Your task to perform on an android device: Open settings Image 0: 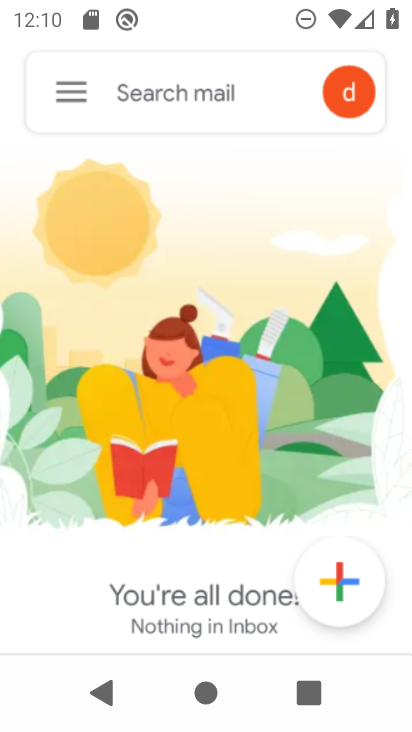
Step 0: press home button
Your task to perform on an android device: Open settings Image 1: 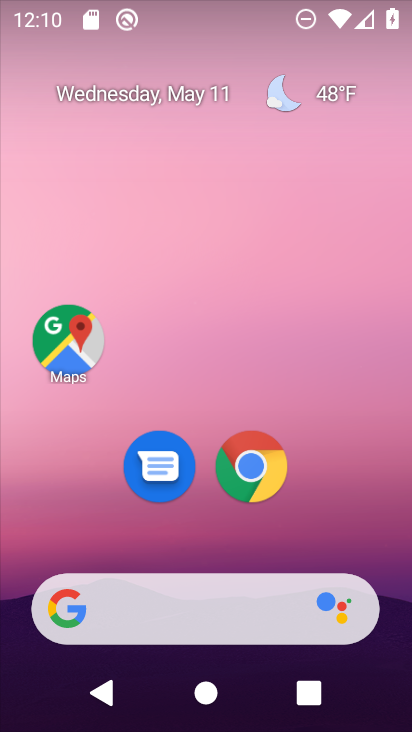
Step 1: drag from (200, 542) to (219, 36)
Your task to perform on an android device: Open settings Image 2: 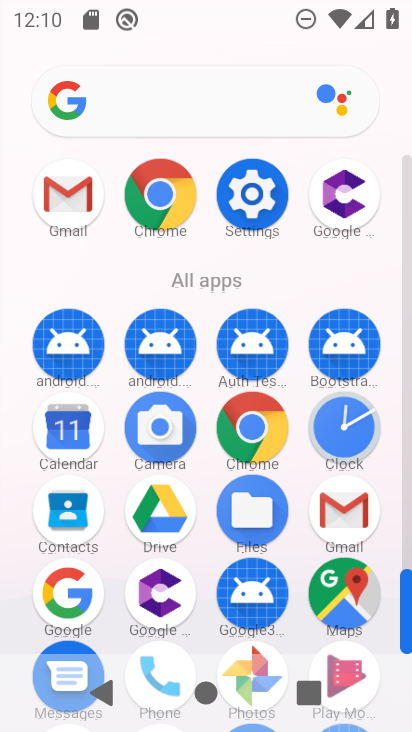
Step 2: click (255, 191)
Your task to perform on an android device: Open settings Image 3: 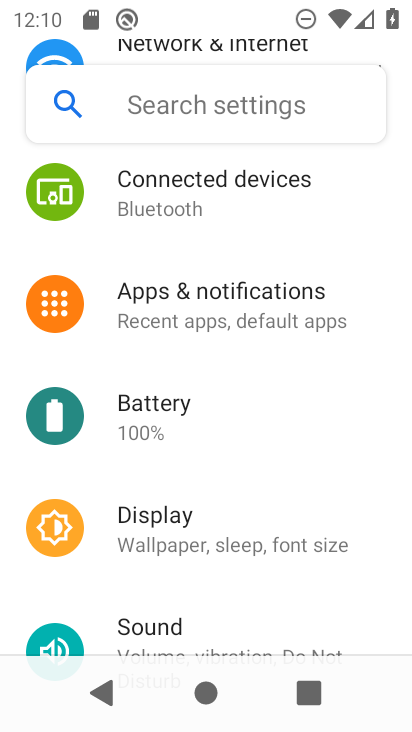
Step 3: task complete